Your task to perform on an android device: Open Chrome and go to settings Image 0: 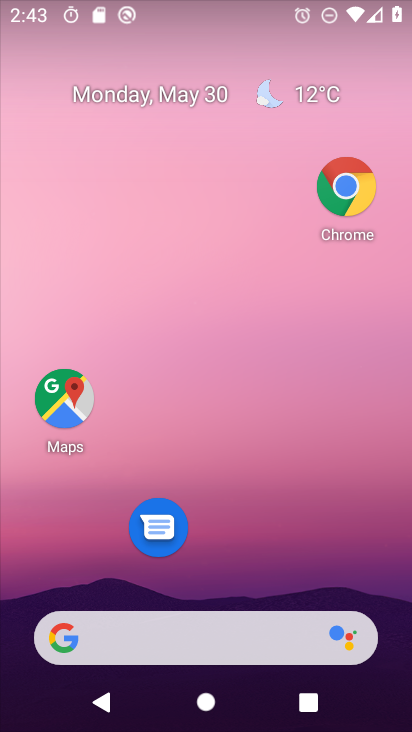
Step 0: drag from (278, 421) to (400, 4)
Your task to perform on an android device: Open Chrome and go to settings Image 1: 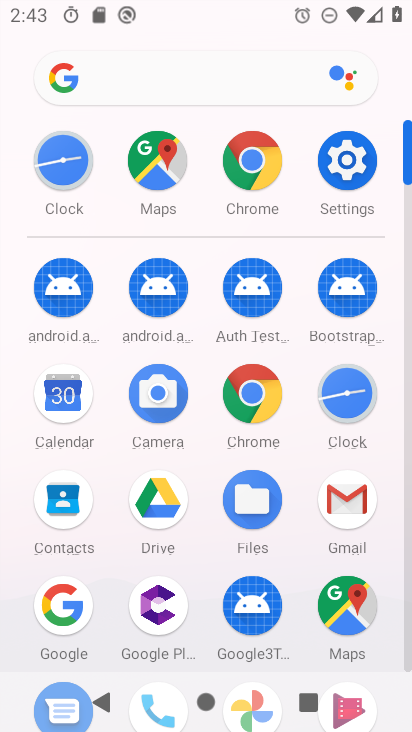
Step 1: click (262, 134)
Your task to perform on an android device: Open Chrome and go to settings Image 2: 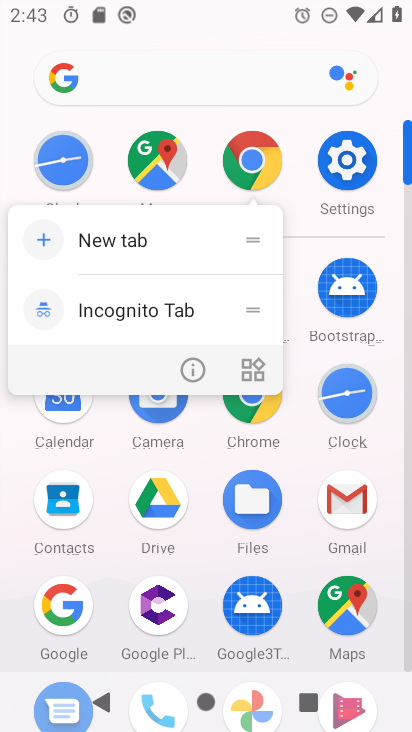
Step 2: click (188, 376)
Your task to perform on an android device: Open Chrome and go to settings Image 3: 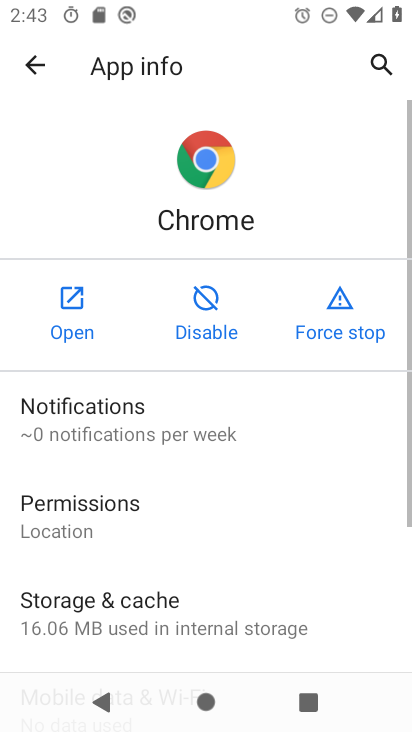
Step 3: click (68, 319)
Your task to perform on an android device: Open Chrome and go to settings Image 4: 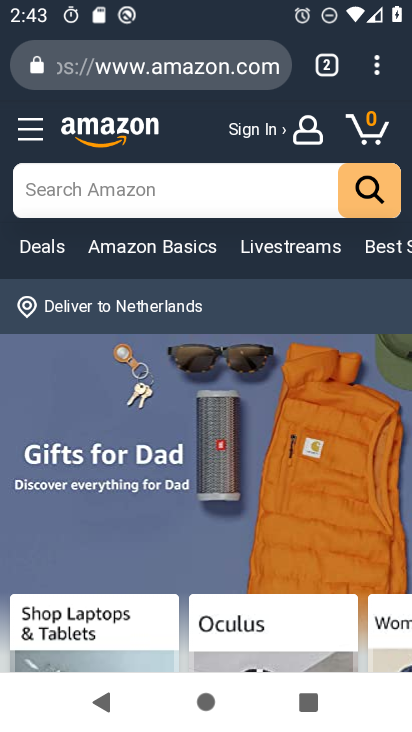
Step 4: task complete